Your task to perform on an android device: Go to battery settings Image 0: 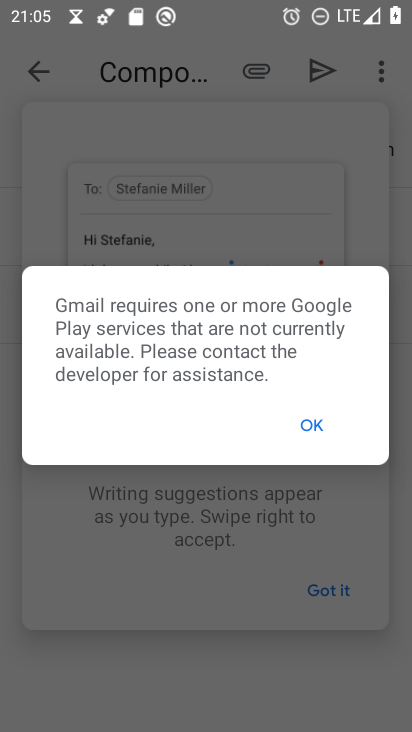
Step 0: press home button
Your task to perform on an android device: Go to battery settings Image 1: 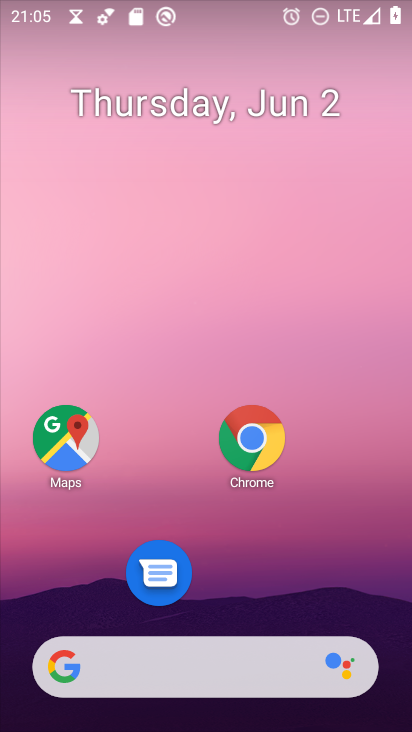
Step 1: drag from (154, 660) to (284, 115)
Your task to perform on an android device: Go to battery settings Image 2: 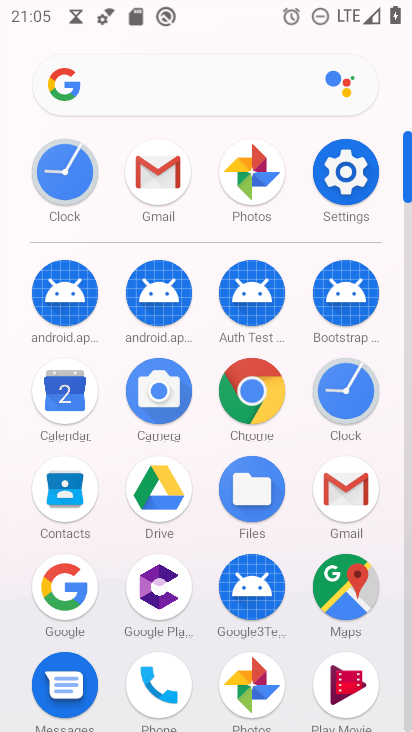
Step 2: click (342, 184)
Your task to perform on an android device: Go to battery settings Image 3: 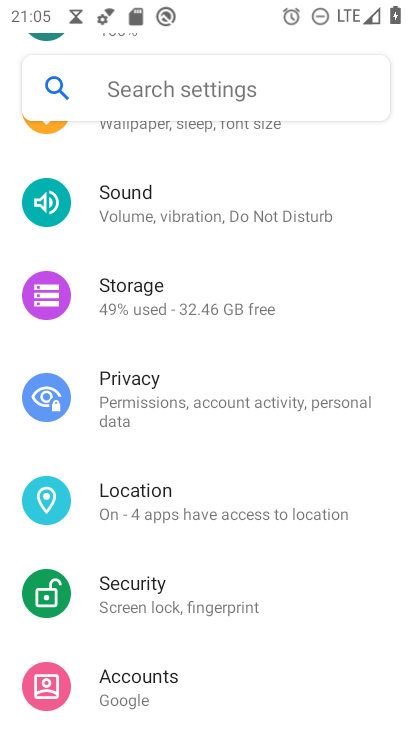
Step 3: drag from (330, 174) to (306, 496)
Your task to perform on an android device: Go to battery settings Image 4: 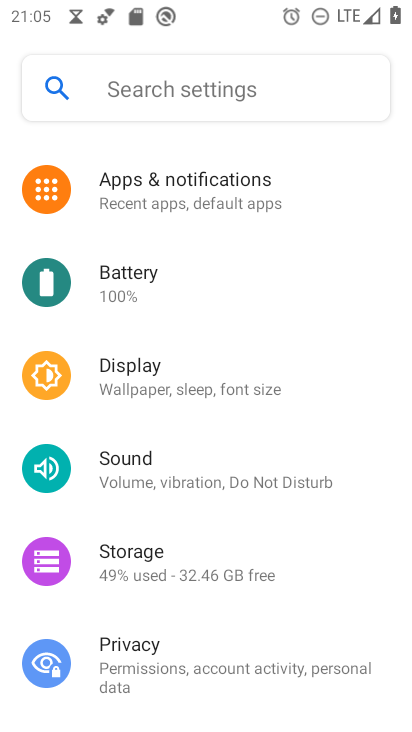
Step 4: click (134, 280)
Your task to perform on an android device: Go to battery settings Image 5: 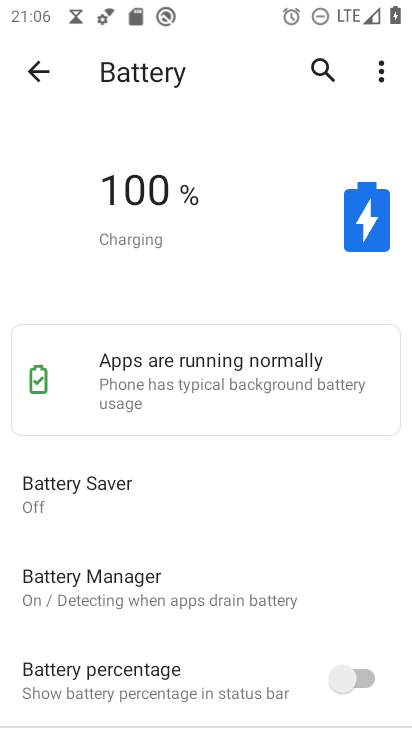
Step 5: task complete